Your task to perform on an android device: search for starred emails in the gmail app Image 0: 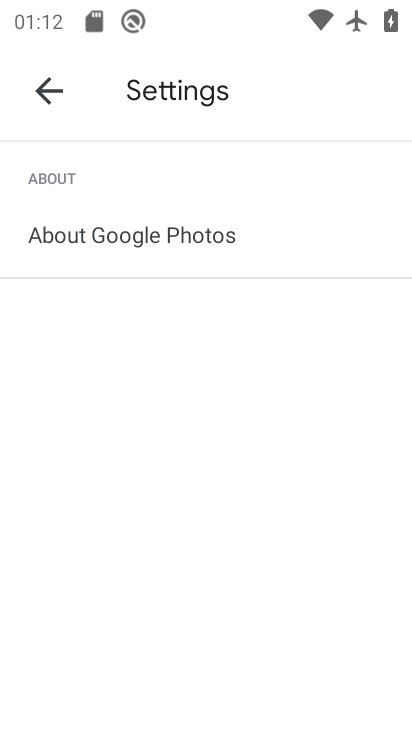
Step 0: press home button
Your task to perform on an android device: search for starred emails in the gmail app Image 1: 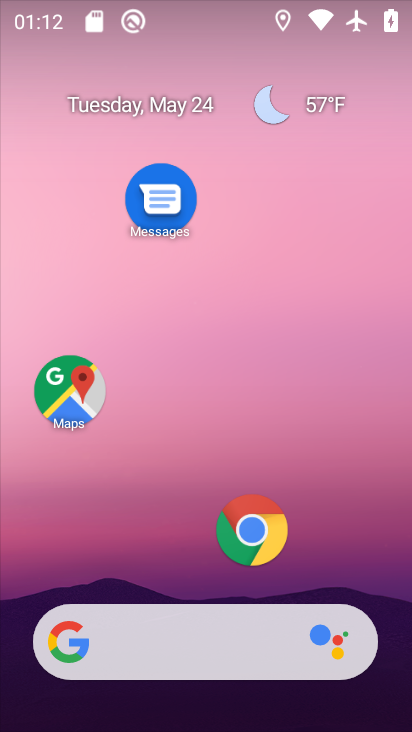
Step 1: drag from (176, 562) to (107, 71)
Your task to perform on an android device: search for starred emails in the gmail app Image 2: 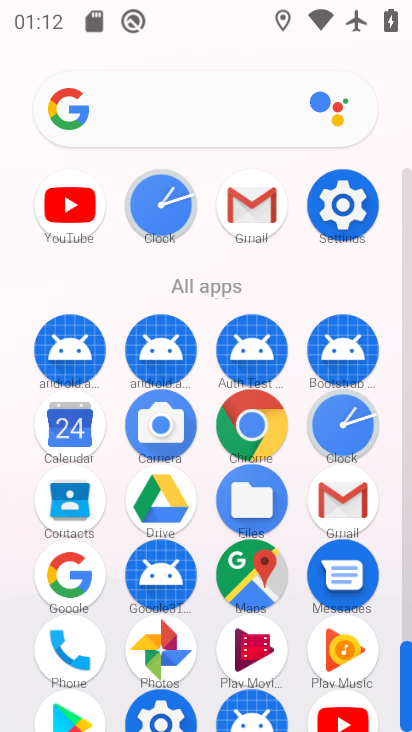
Step 2: click (346, 491)
Your task to perform on an android device: search for starred emails in the gmail app Image 3: 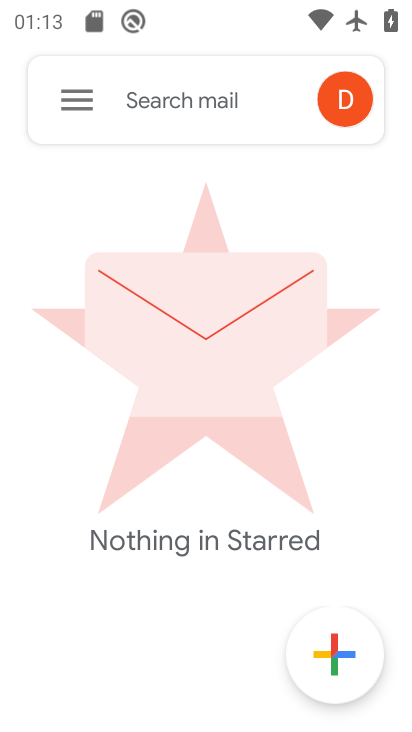
Step 3: task complete